Your task to perform on an android device: Search for duracell triple a on bestbuy.com, select the first entry, add it to the cart, then select checkout. Image 0: 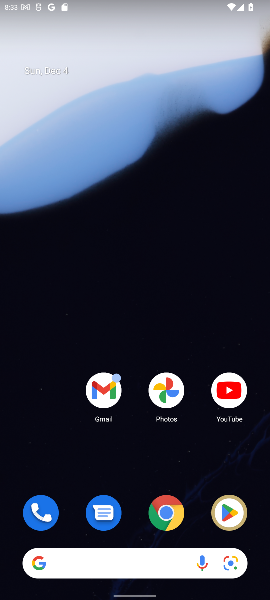
Step 0: click (166, 511)
Your task to perform on an android device: Search for duracell triple a on bestbuy.com, select the first entry, add it to the cart, then select checkout. Image 1: 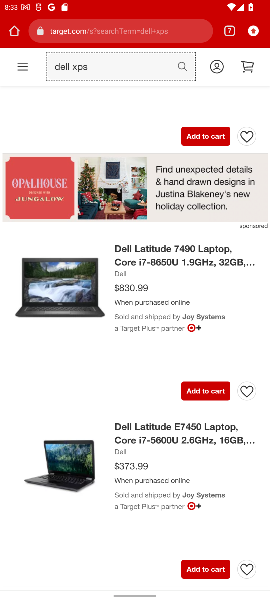
Step 1: click (233, 31)
Your task to perform on an android device: Search for duracell triple a on bestbuy.com, select the first entry, add it to the cart, then select checkout. Image 2: 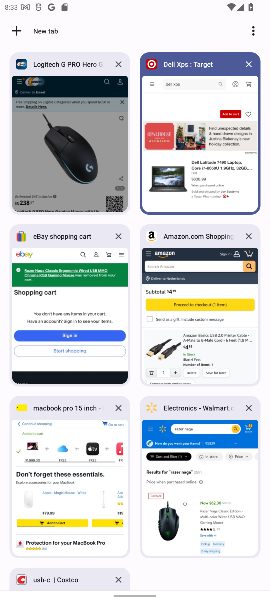
Step 2: click (71, 498)
Your task to perform on an android device: Search for duracell triple a on bestbuy.com, select the first entry, add it to the cart, then select checkout. Image 3: 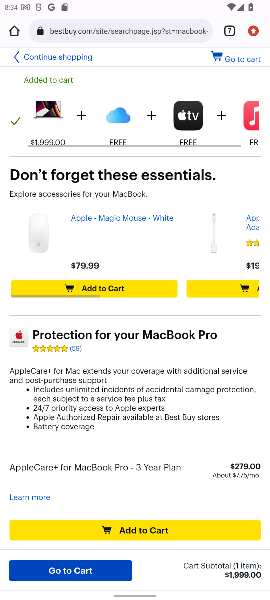
Step 3: click (67, 56)
Your task to perform on an android device: Search for duracell triple a on bestbuy.com, select the first entry, add it to the cart, then select checkout. Image 4: 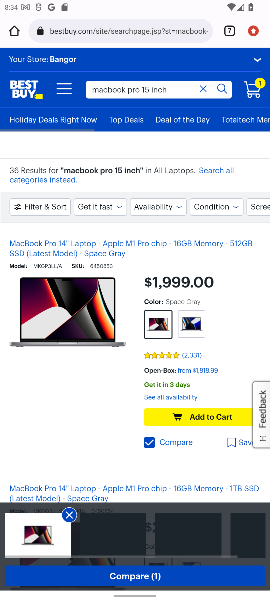
Step 4: click (202, 90)
Your task to perform on an android device: Search for duracell triple a on bestbuy.com, select the first entry, add it to the cart, then select checkout. Image 5: 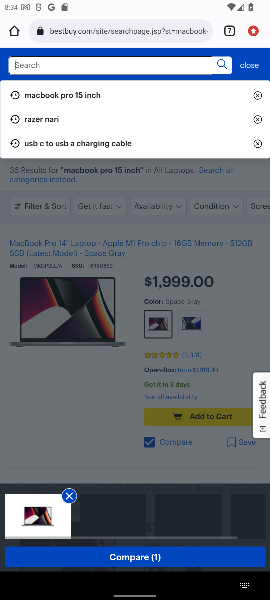
Step 5: type "duracell triple a"
Your task to perform on an android device: Search for duracell triple a on bestbuy.com, select the first entry, add it to the cart, then select checkout. Image 6: 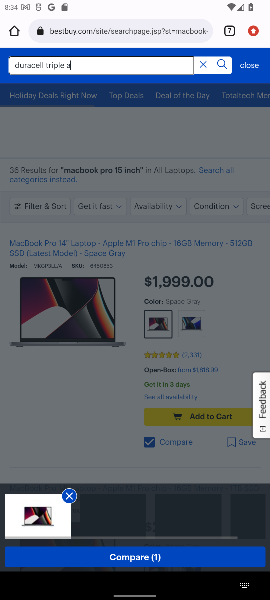
Step 6: click (225, 61)
Your task to perform on an android device: Search for duracell triple a on bestbuy.com, select the first entry, add it to the cart, then select checkout. Image 7: 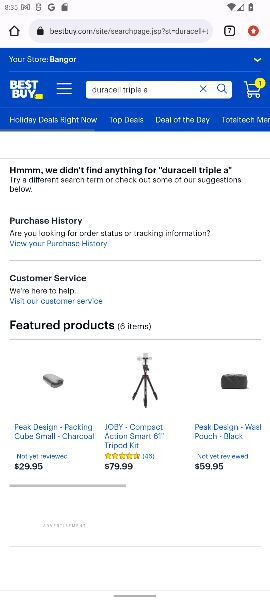
Step 7: task complete